Your task to perform on an android device: turn vacation reply on in the gmail app Image 0: 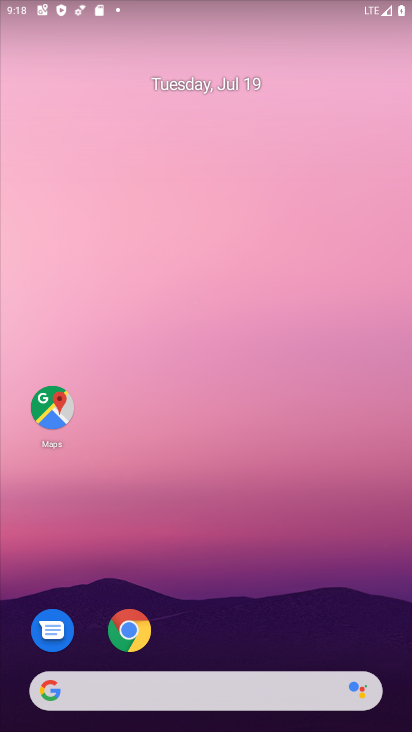
Step 0: drag from (199, 650) to (249, 80)
Your task to perform on an android device: turn vacation reply on in the gmail app Image 1: 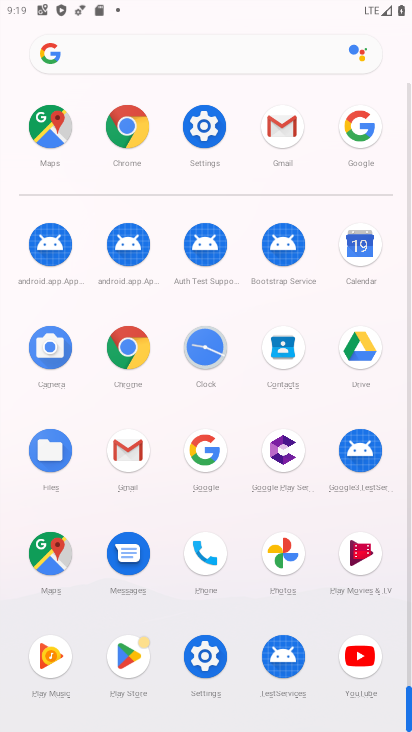
Step 1: click (278, 138)
Your task to perform on an android device: turn vacation reply on in the gmail app Image 2: 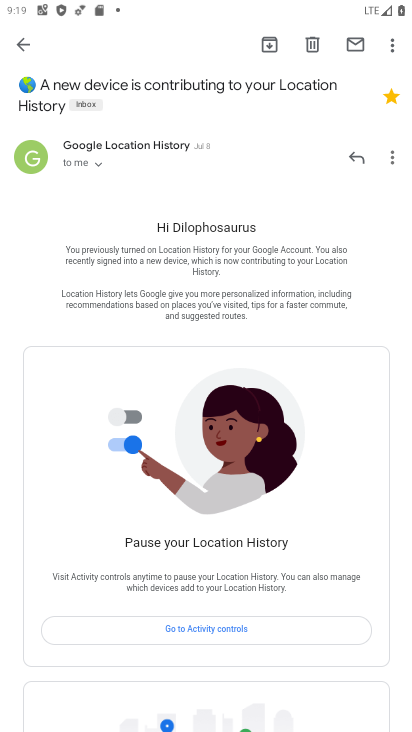
Step 2: click (23, 48)
Your task to perform on an android device: turn vacation reply on in the gmail app Image 3: 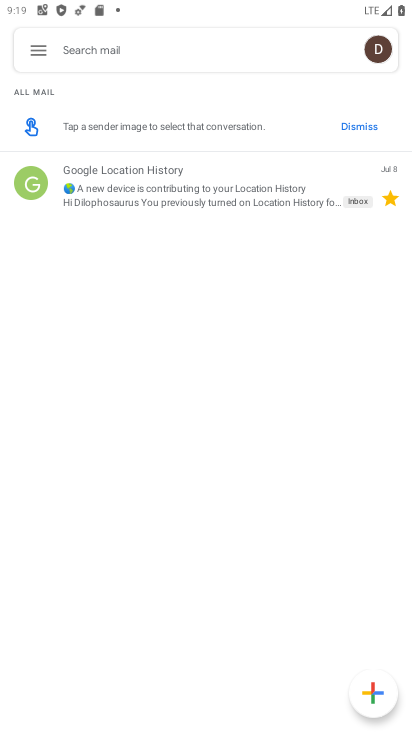
Step 3: click (39, 59)
Your task to perform on an android device: turn vacation reply on in the gmail app Image 4: 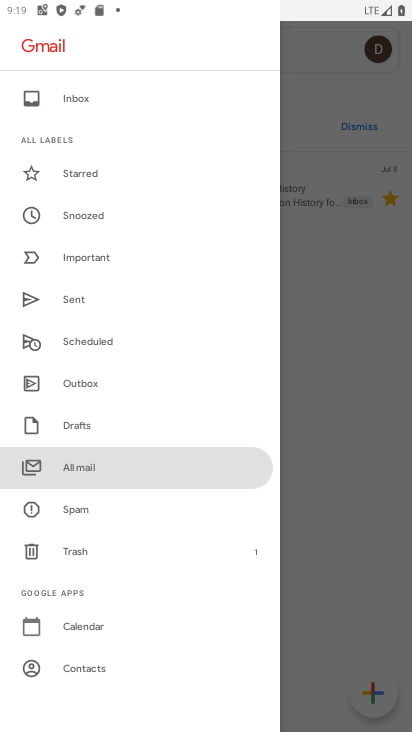
Step 4: drag from (105, 544) to (140, 172)
Your task to perform on an android device: turn vacation reply on in the gmail app Image 5: 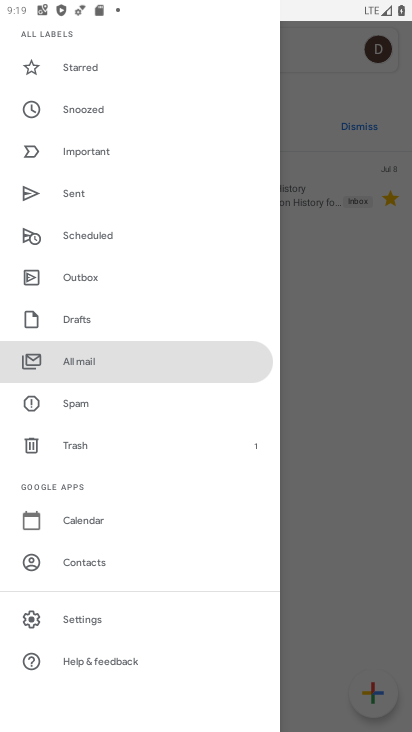
Step 5: click (87, 609)
Your task to perform on an android device: turn vacation reply on in the gmail app Image 6: 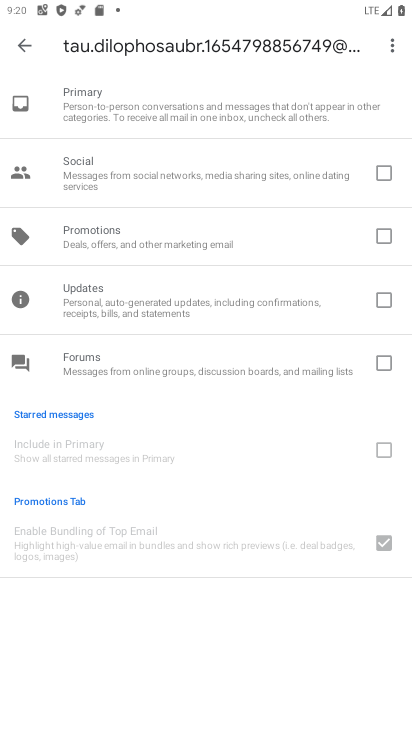
Step 6: click (22, 46)
Your task to perform on an android device: turn vacation reply on in the gmail app Image 7: 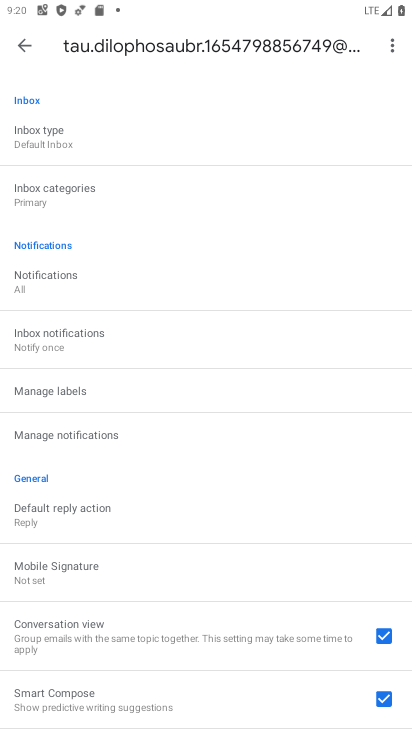
Step 7: drag from (112, 547) to (131, 98)
Your task to perform on an android device: turn vacation reply on in the gmail app Image 8: 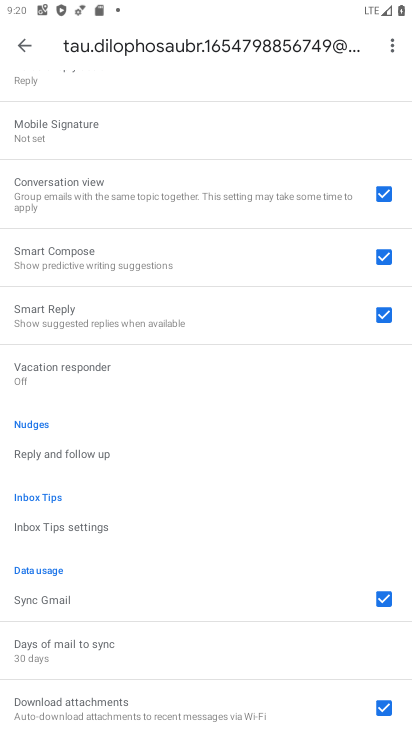
Step 8: drag from (135, 268) to (163, 647)
Your task to perform on an android device: turn vacation reply on in the gmail app Image 9: 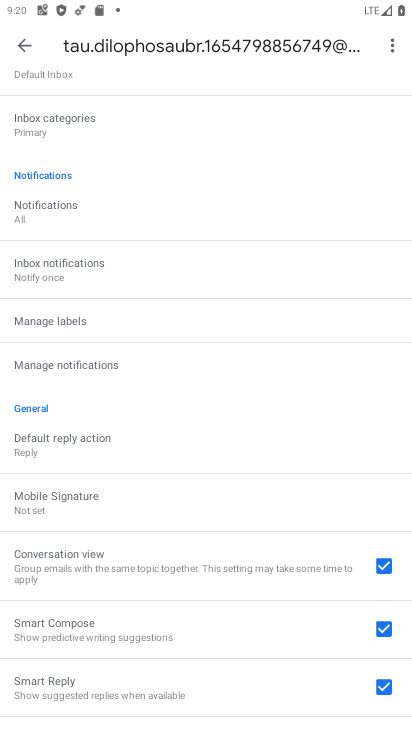
Step 9: drag from (87, 257) to (148, 12)
Your task to perform on an android device: turn vacation reply on in the gmail app Image 10: 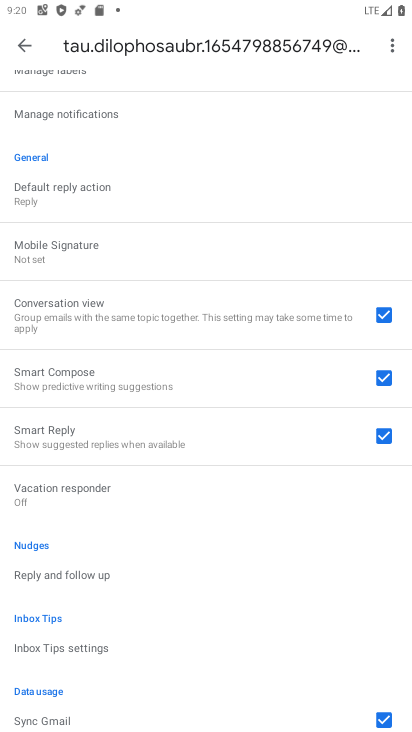
Step 10: click (131, 497)
Your task to perform on an android device: turn vacation reply on in the gmail app Image 11: 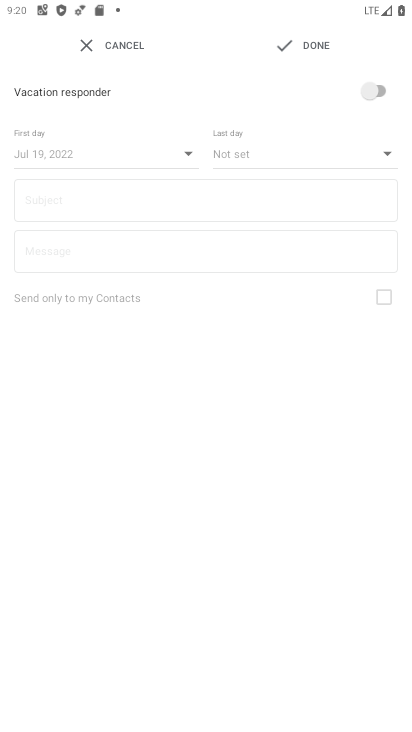
Step 11: click (387, 88)
Your task to perform on an android device: turn vacation reply on in the gmail app Image 12: 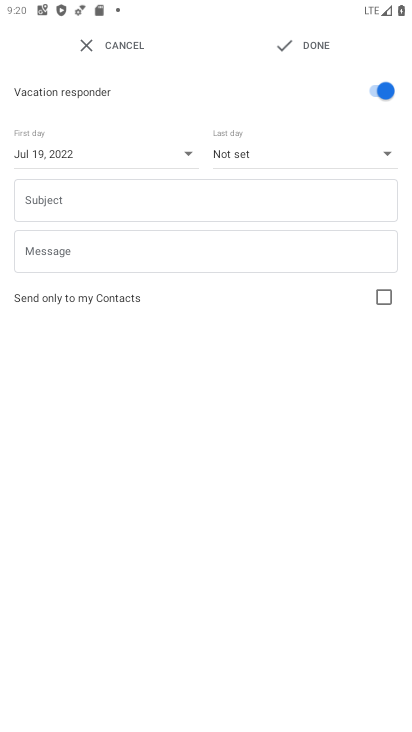
Step 12: task complete